Your task to perform on an android device: Open the calendar app, open the side menu, and click the "Day" option Image 0: 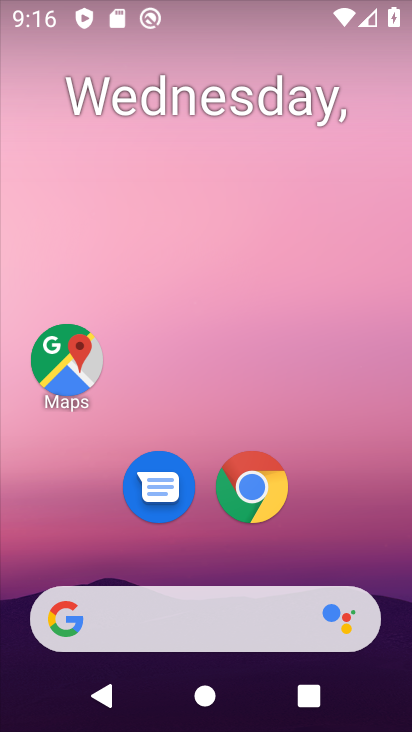
Step 0: drag from (245, 691) to (145, 21)
Your task to perform on an android device: Open the calendar app, open the side menu, and click the "Day" option Image 1: 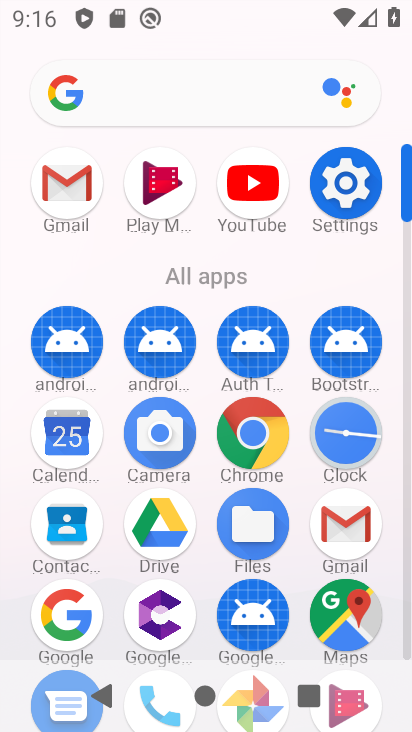
Step 1: click (57, 442)
Your task to perform on an android device: Open the calendar app, open the side menu, and click the "Day" option Image 2: 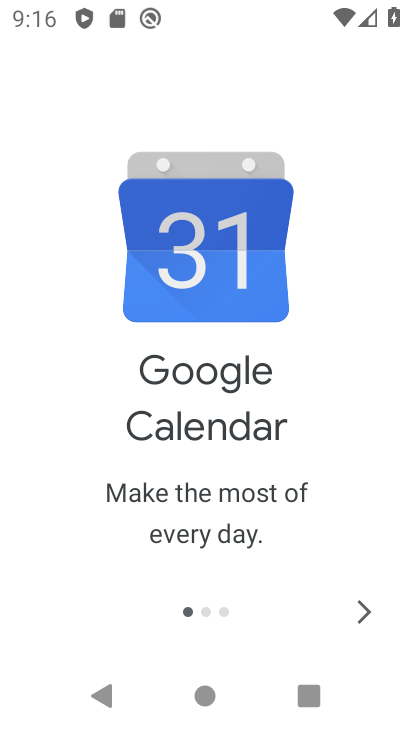
Step 2: click (364, 611)
Your task to perform on an android device: Open the calendar app, open the side menu, and click the "Day" option Image 3: 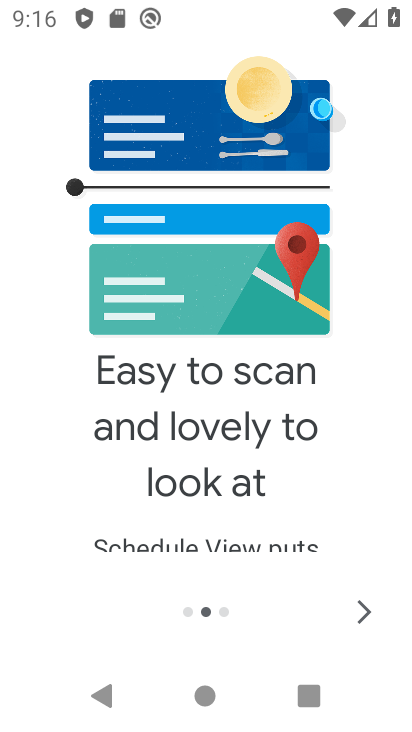
Step 3: click (364, 610)
Your task to perform on an android device: Open the calendar app, open the side menu, and click the "Day" option Image 4: 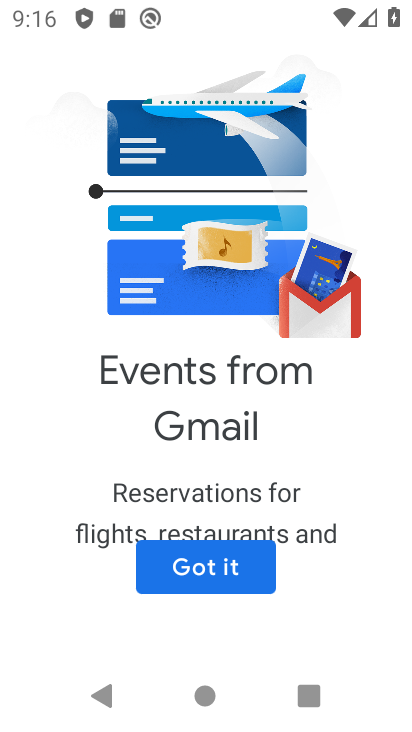
Step 4: click (236, 578)
Your task to perform on an android device: Open the calendar app, open the side menu, and click the "Day" option Image 5: 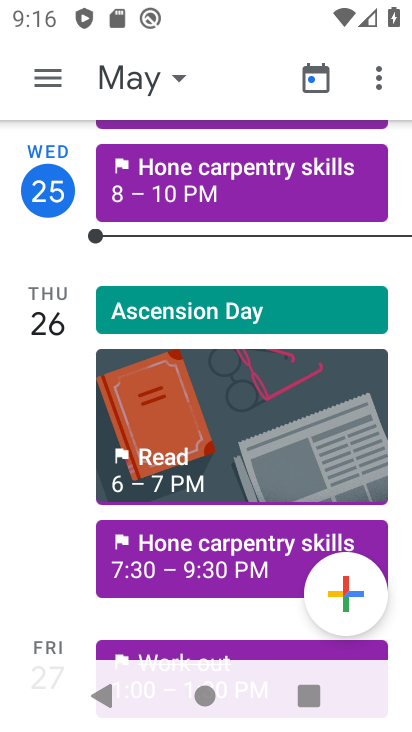
Step 5: click (51, 77)
Your task to perform on an android device: Open the calendar app, open the side menu, and click the "Day" option Image 6: 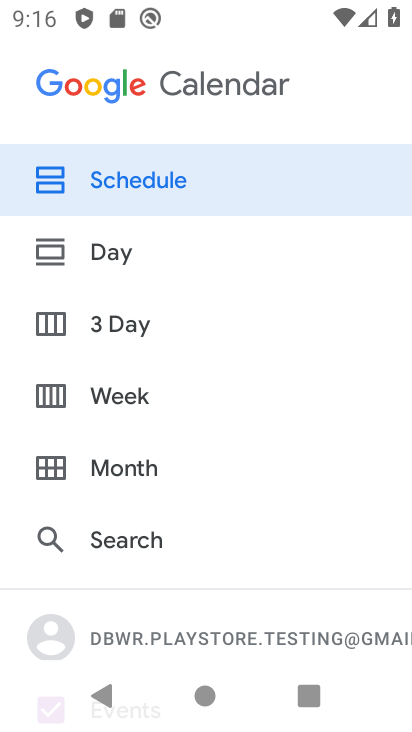
Step 6: click (181, 239)
Your task to perform on an android device: Open the calendar app, open the side menu, and click the "Day" option Image 7: 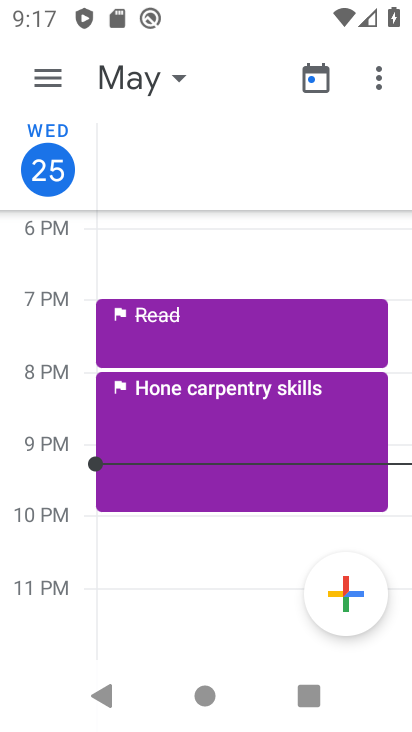
Step 7: task complete